Your task to perform on an android device: Go to battery settings Image 0: 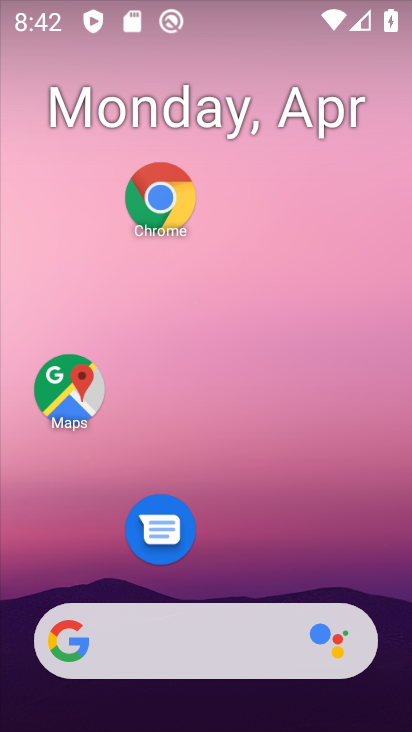
Step 0: drag from (230, 482) to (289, 39)
Your task to perform on an android device: Go to battery settings Image 1: 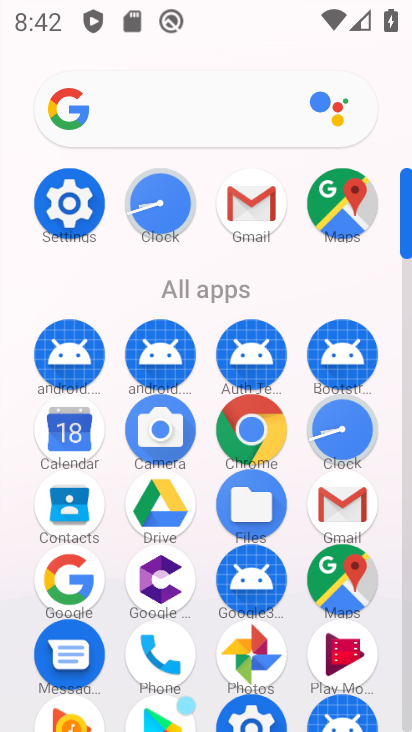
Step 1: click (73, 198)
Your task to perform on an android device: Go to battery settings Image 2: 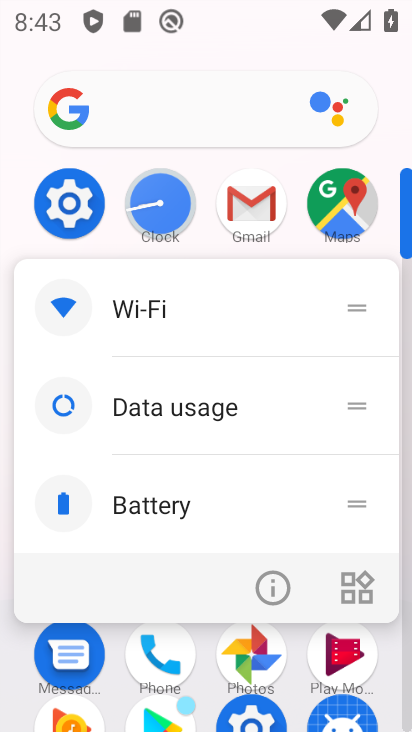
Step 2: click (177, 503)
Your task to perform on an android device: Go to battery settings Image 3: 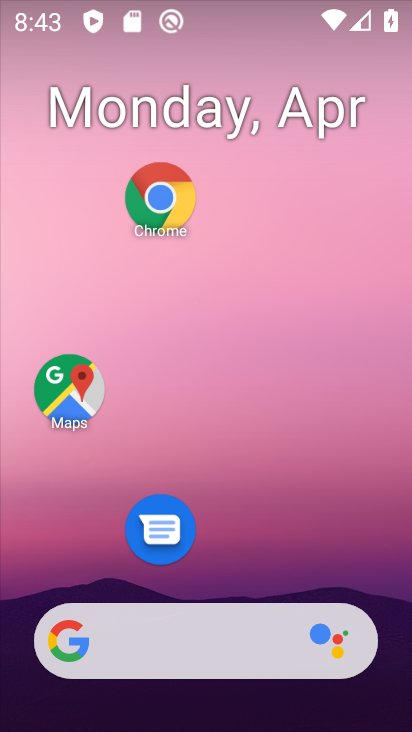
Step 3: drag from (269, 424) to (345, 0)
Your task to perform on an android device: Go to battery settings Image 4: 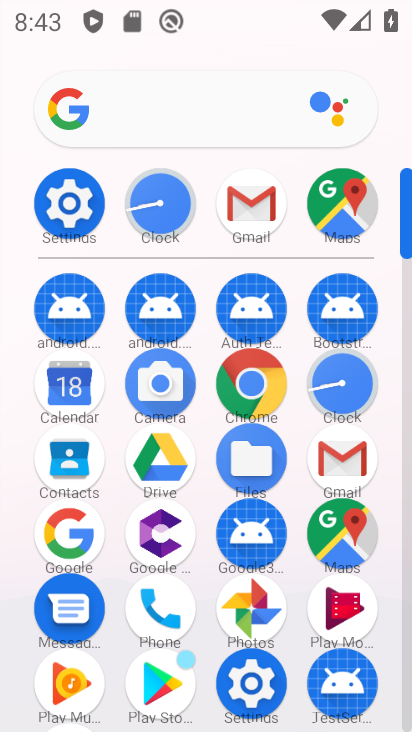
Step 4: click (81, 198)
Your task to perform on an android device: Go to battery settings Image 5: 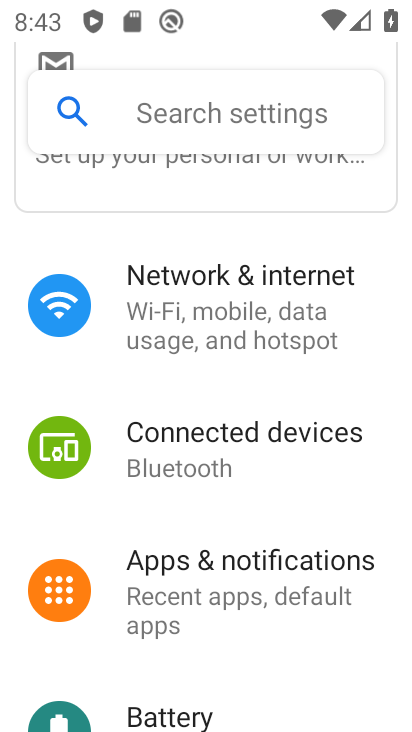
Step 5: drag from (169, 613) to (221, 256)
Your task to perform on an android device: Go to battery settings Image 6: 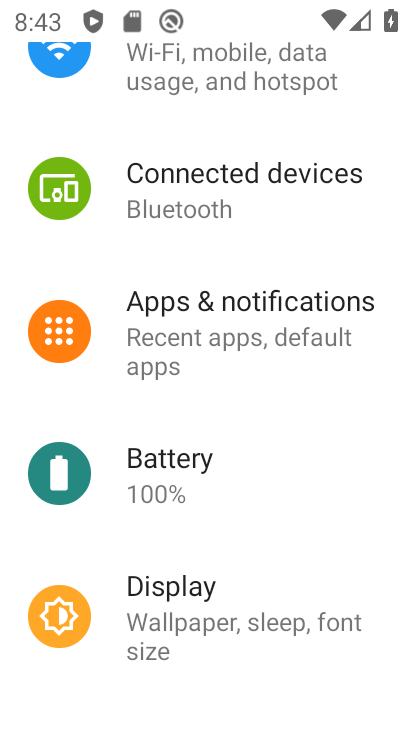
Step 6: click (171, 485)
Your task to perform on an android device: Go to battery settings Image 7: 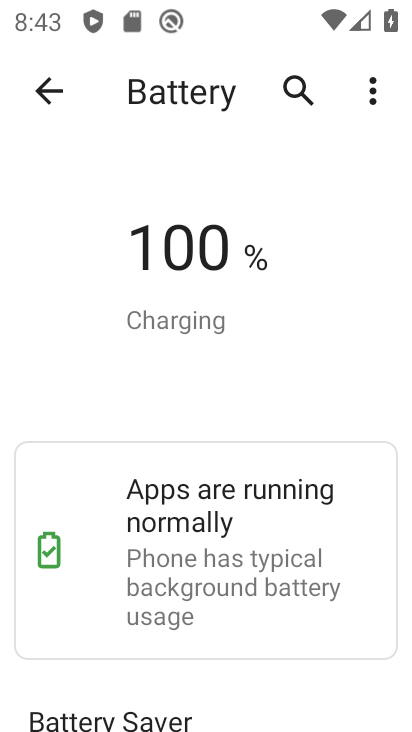
Step 7: task complete